Your task to perform on an android device: Open Youtube and go to "Your channel" Image 0: 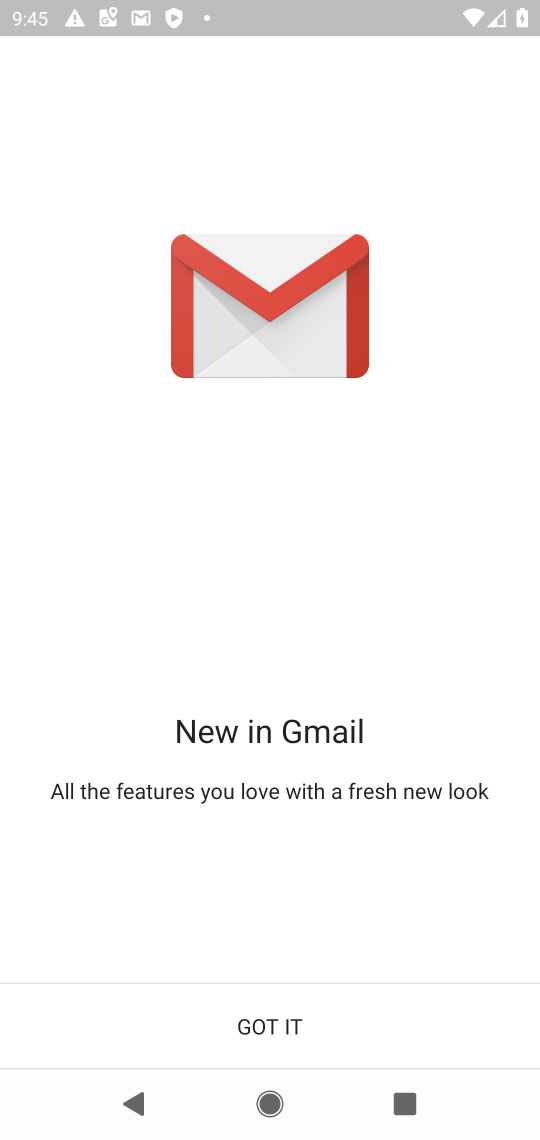
Step 0: press home button
Your task to perform on an android device: Open Youtube and go to "Your channel" Image 1: 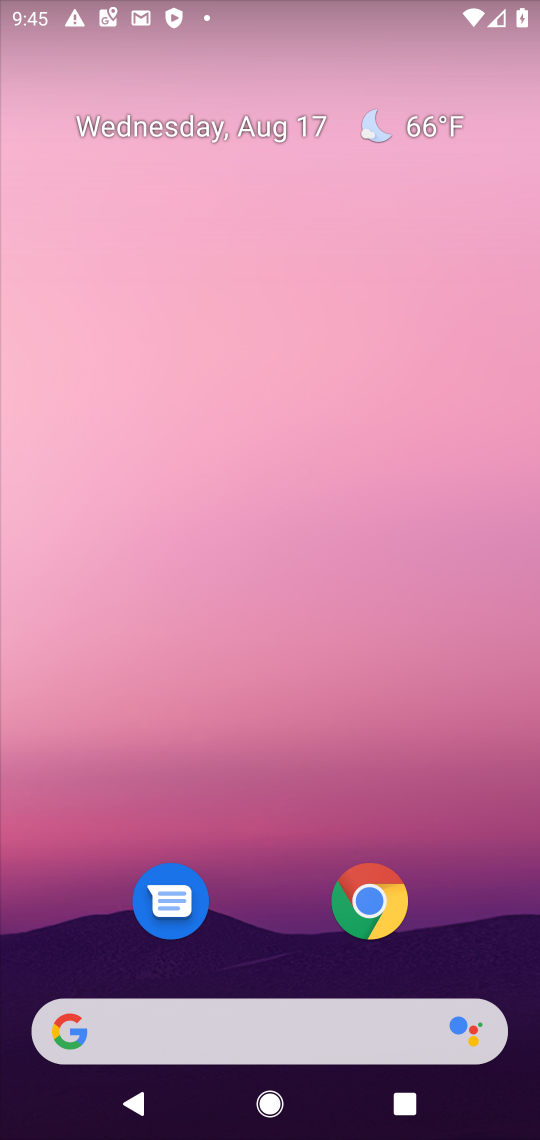
Step 1: drag from (237, 925) to (353, 184)
Your task to perform on an android device: Open Youtube and go to "Your channel" Image 2: 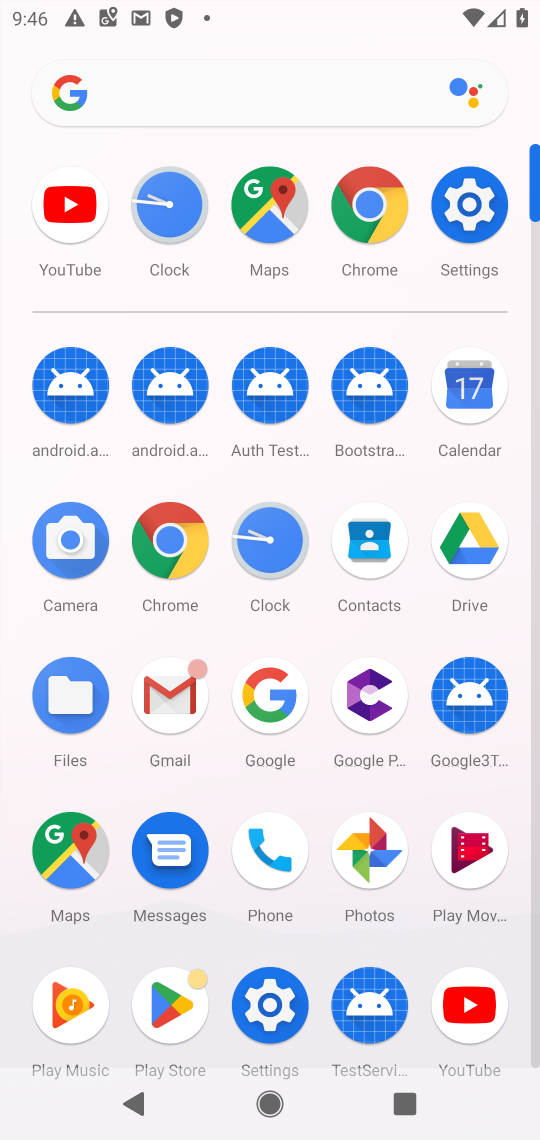
Step 2: click (464, 999)
Your task to perform on an android device: Open Youtube and go to "Your channel" Image 3: 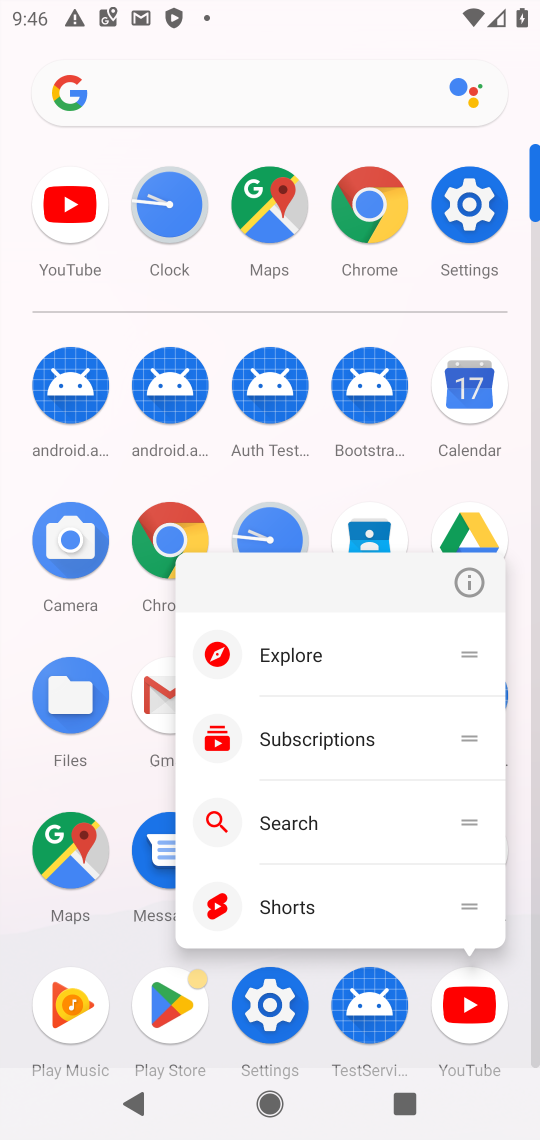
Step 3: click (464, 999)
Your task to perform on an android device: Open Youtube and go to "Your channel" Image 4: 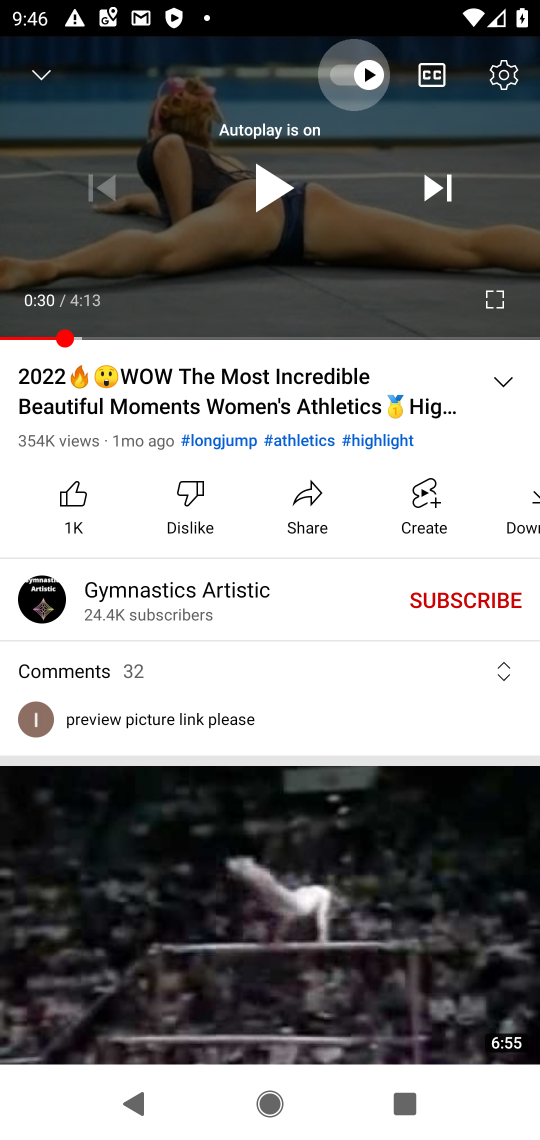
Step 4: drag from (381, 266) to (294, 863)
Your task to perform on an android device: Open Youtube and go to "Your channel" Image 5: 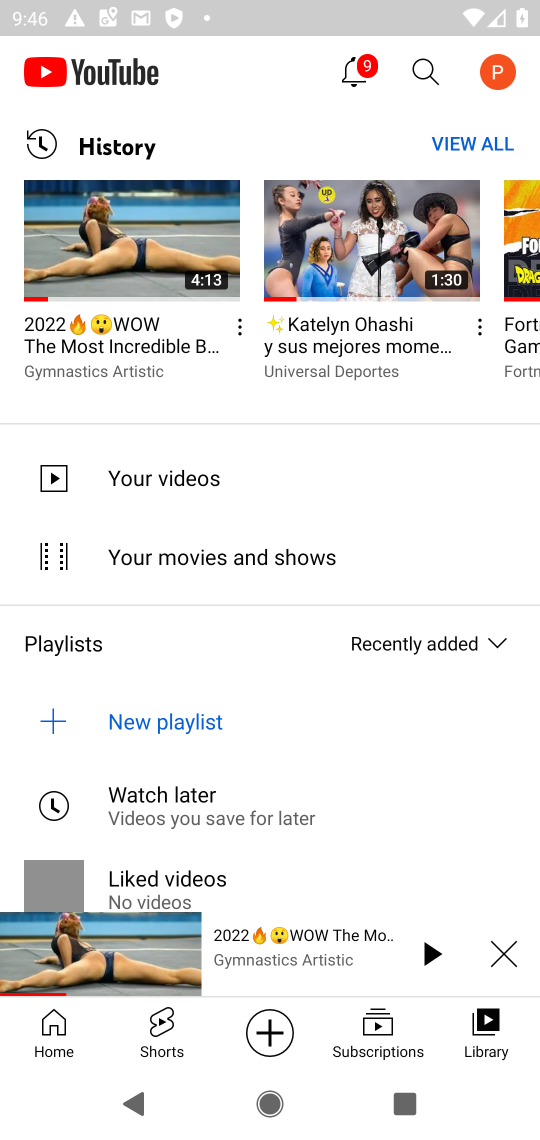
Step 5: click (499, 65)
Your task to perform on an android device: Open Youtube and go to "Your channel" Image 6: 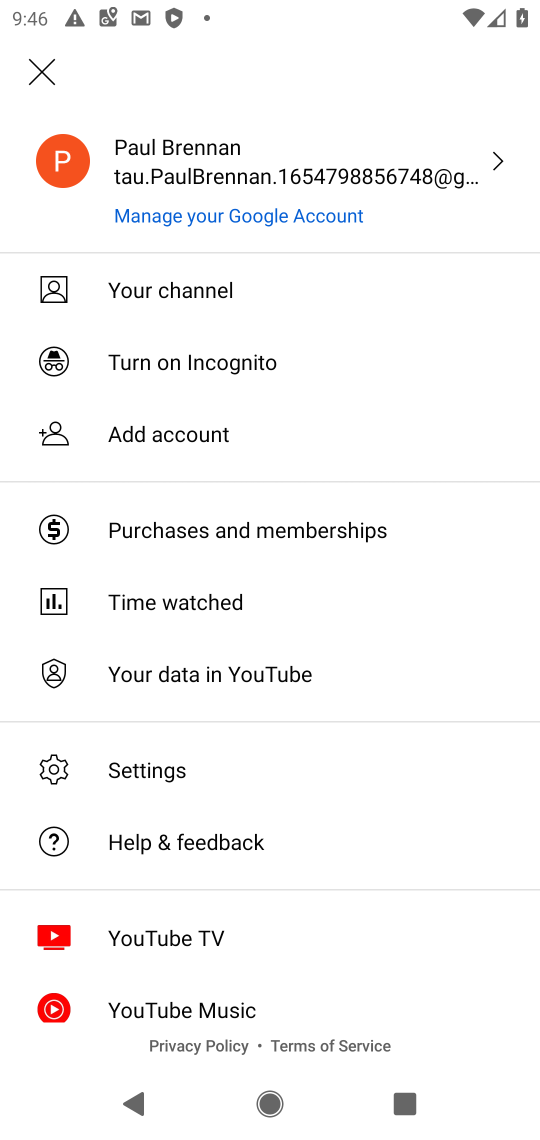
Step 6: click (216, 304)
Your task to perform on an android device: Open Youtube and go to "Your channel" Image 7: 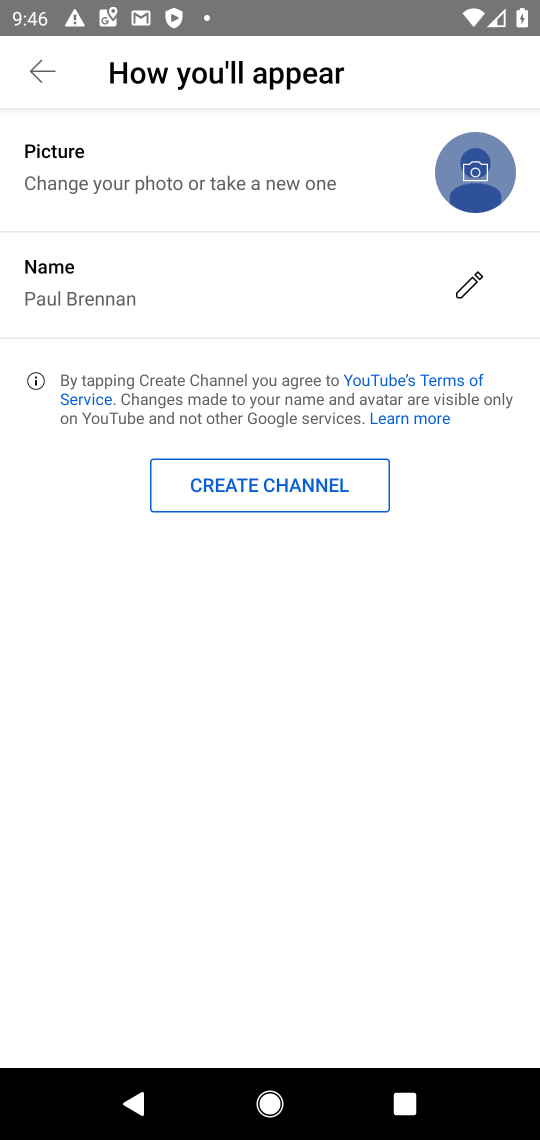
Step 7: task complete